Your task to perform on an android device: Turn off the flashlight Image 0: 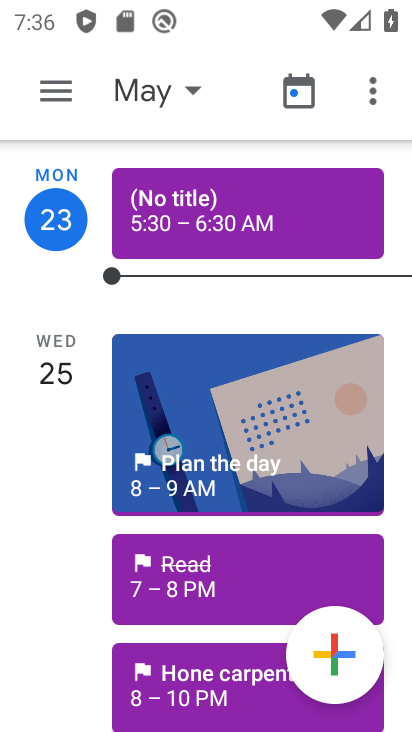
Step 0: drag from (214, 21) to (45, 513)
Your task to perform on an android device: Turn off the flashlight Image 1: 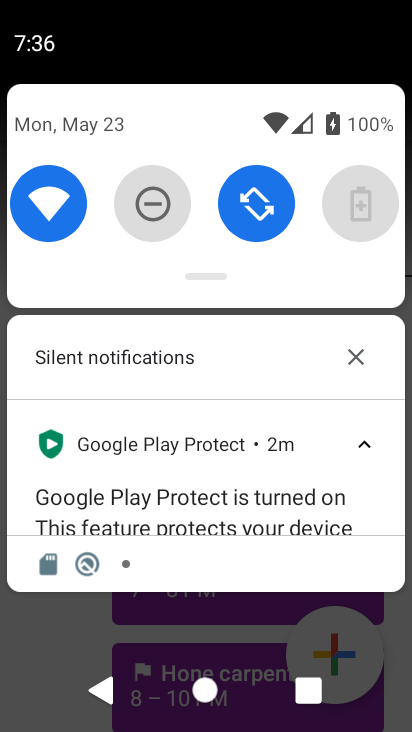
Step 1: drag from (211, 125) to (133, 617)
Your task to perform on an android device: Turn off the flashlight Image 2: 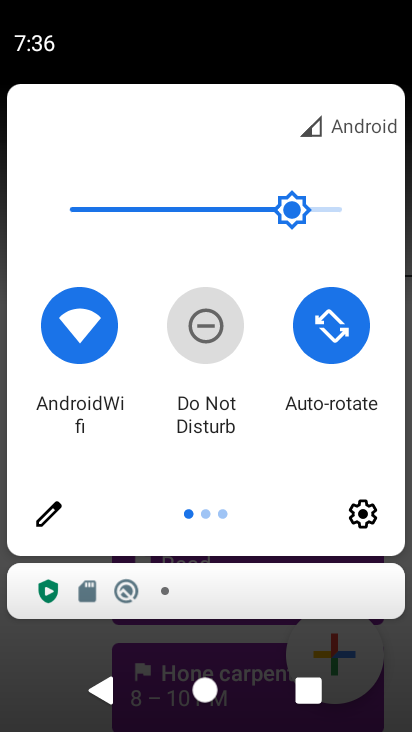
Step 2: click (370, 523)
Your task to perform on an android device: Turn off the flashlight Image 3: 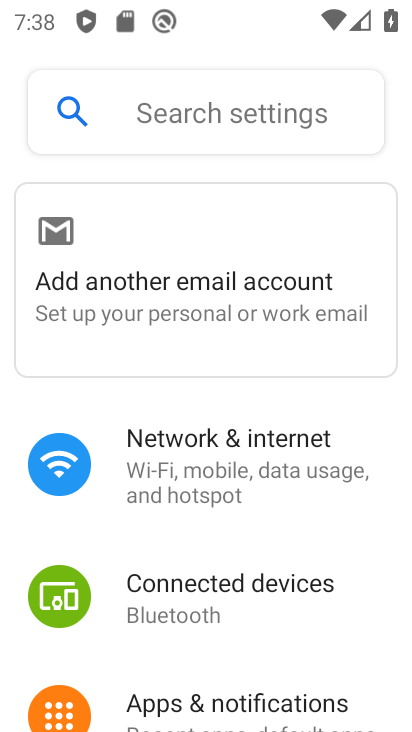
Step 3: task complete